Your task to perform on an android device: Is it going to rain today? Image 0: 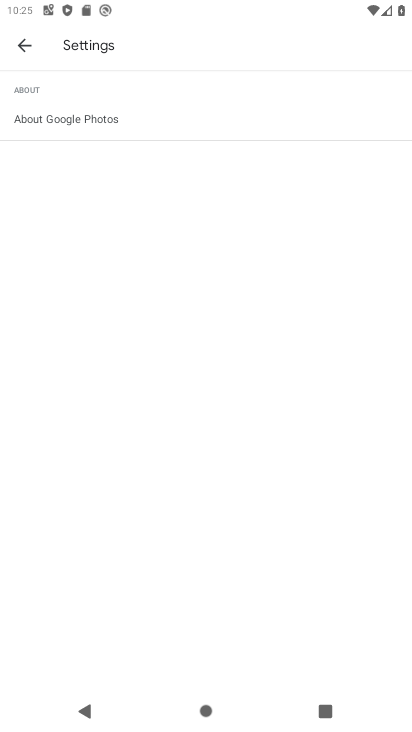
Step 0: press home button
Your task to perform on an android device: Is it going to rain today? Image 1: 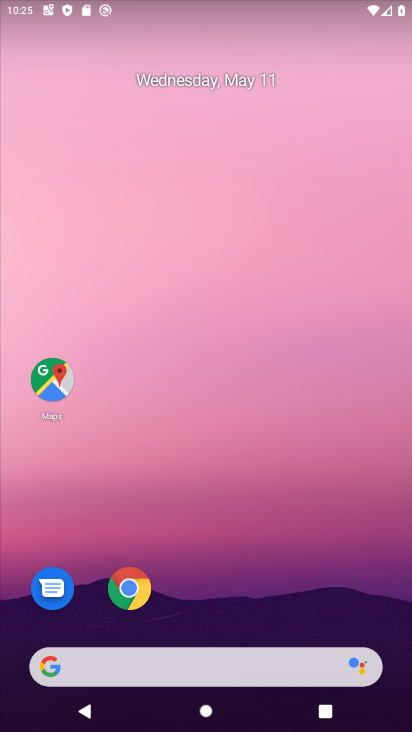
Step 1: click (180, 656)
Your task to perform on an android device: Is it going to rain today? Image 2: 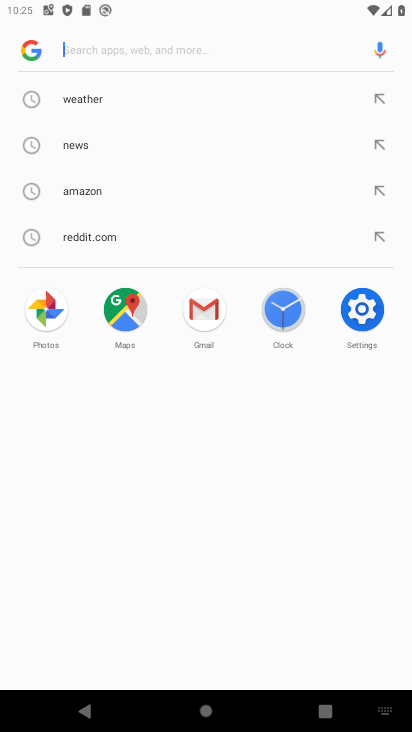
Step 2: type "Is it going to rain today?"
Your task to perform on an android device: Is it going to rain today? Image 3: 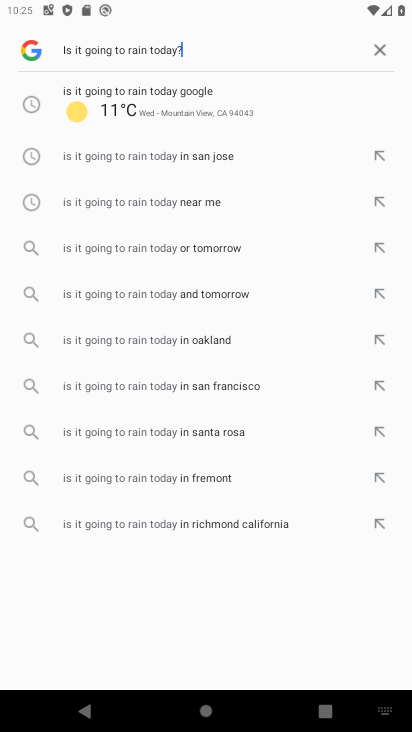
Step 3: click (219, 105)
Your task to perform on an android device: Is it going to rain today? Image 4: 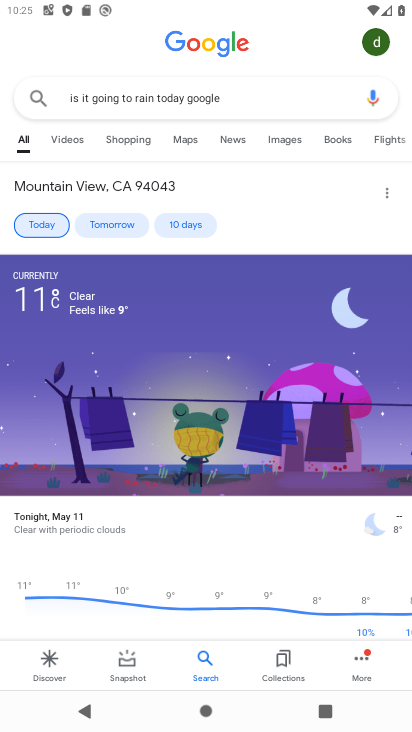
Step 4: task complete